Your task to perform on an android device: Play the last video I watched on Youtube Image 0: 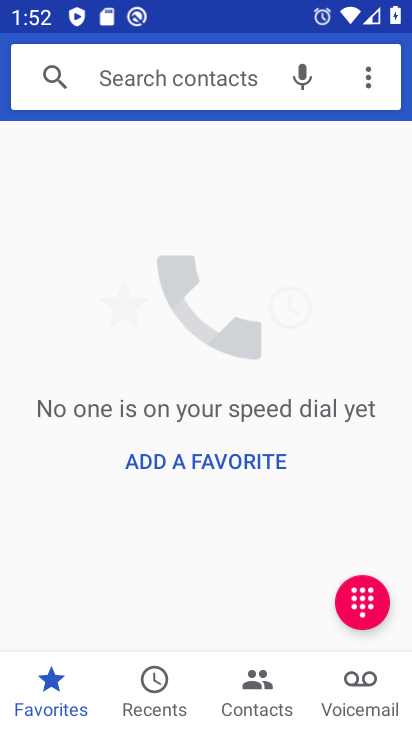
Step 0: press home button
Your task to perform on an android device: Play the last video I watched on Youtube Image 1: 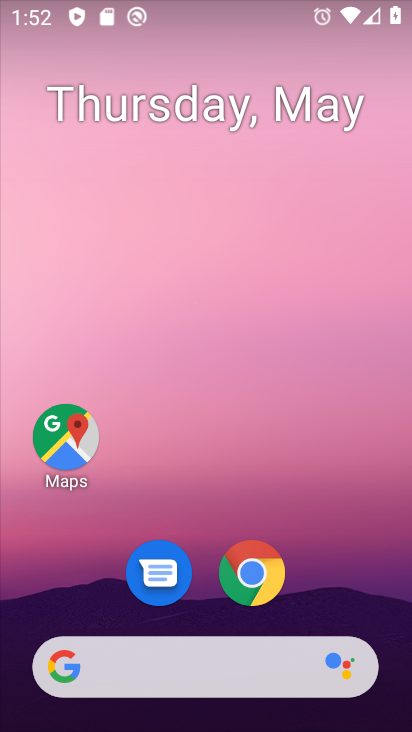
Step 1: drag from (386, 579) to (311, 27)
Your task to perform on an android device: Play the last video I watched on Youtube Image 2: 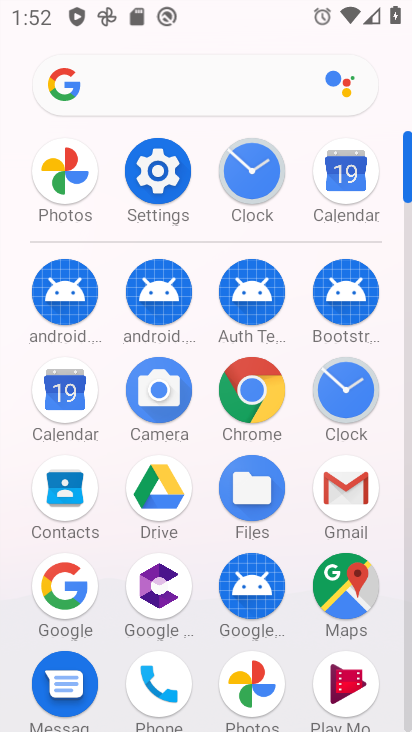
Step 2: click (411, 100)
Your task to perform on an android device: Play the last video I watched on Youtube Image 3: 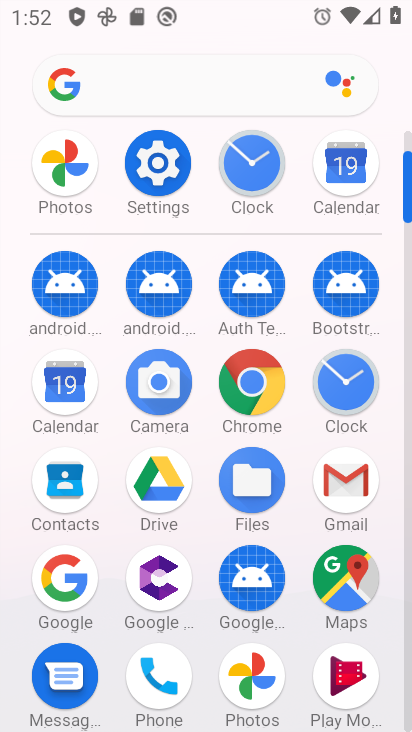
Step 3: drag from (405, 145) to (410, 55)
Your task to perform on an android device: Play the last video I watched on Youtube Image 4: 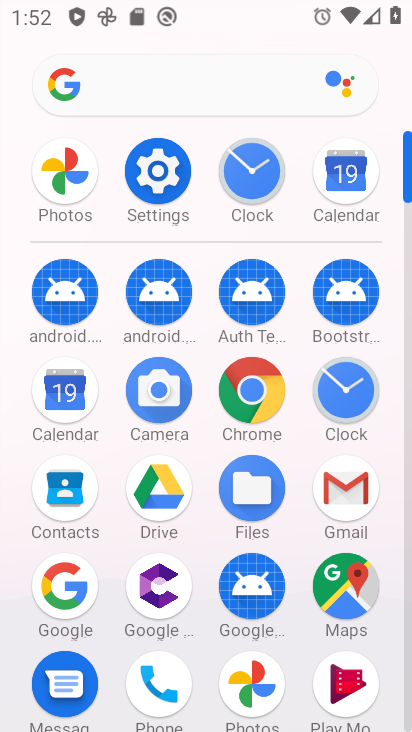
Step 4: drag from (409, 142) to (402, 52)
Your task to perform on an android device: Play the last video I watched on Youtube Image 5: 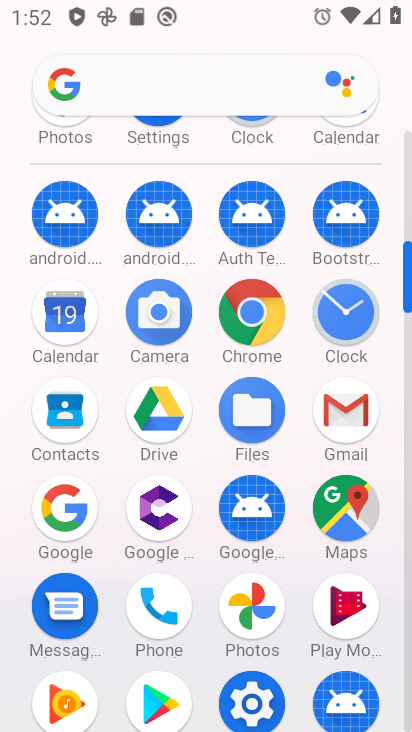
Step 5: drag from (407, 255) to (411, 159)
Your task to perform on an android device: Play the last video I watched on Youtube Image 6: 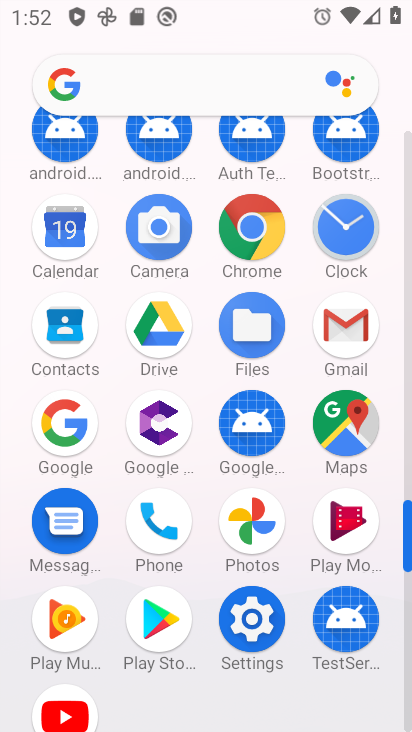
Step 6: click (73, 705)
Your task to perform on an android device: Play the last video I watched on Youtube Image 7: 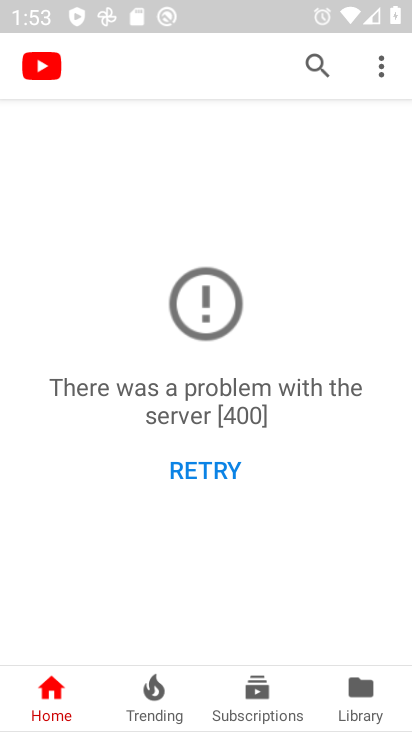
Step 7: task complete